Your task to perform on an android device: Open Yahoo.com Image 0: 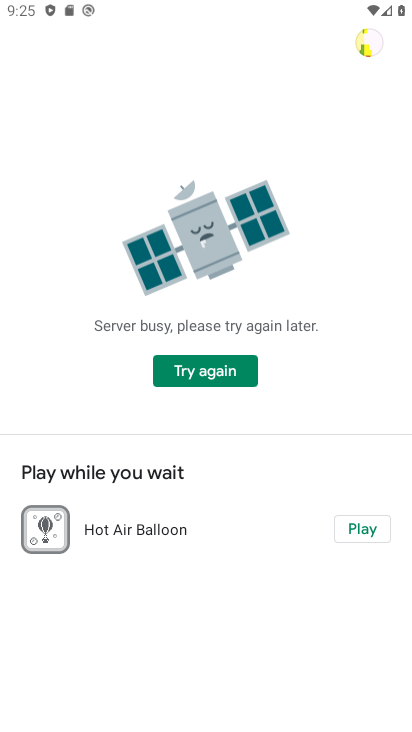
Step 0: press home button
Your task to perform on an android device: Open Yahoo.com Image 1: 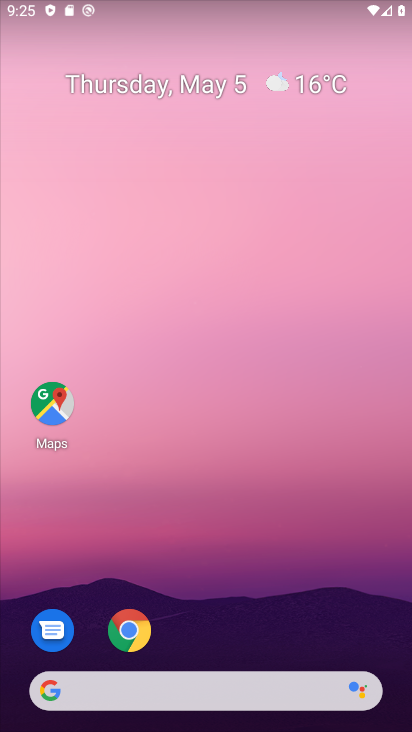
Step 1: click (140, 637)
Your task to perform on an android device: Open Yahoo.com Image 2: 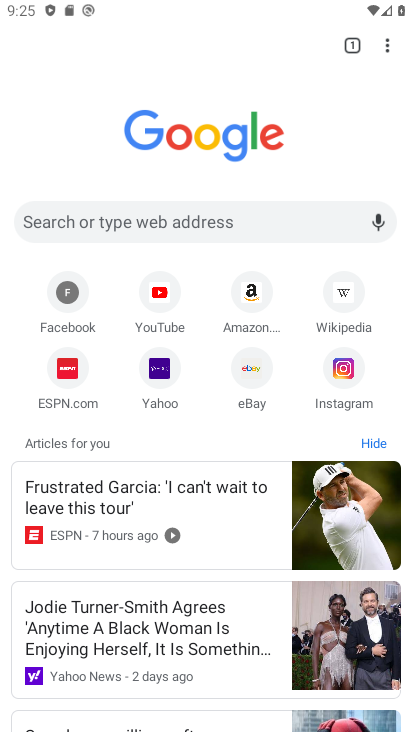
Step 2: click (186, 226)
Your task to perform on an android device: Open Yahoo.com Image 3: 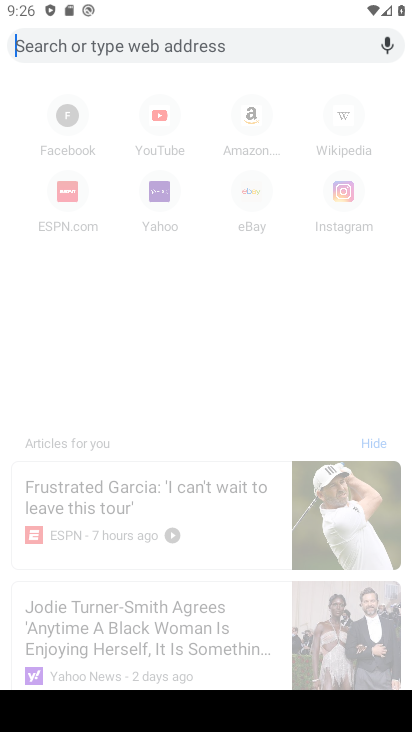
Step 3: type "yahoo.com"
Your task to perform on an android device: Open Yahoo.com Image 4: 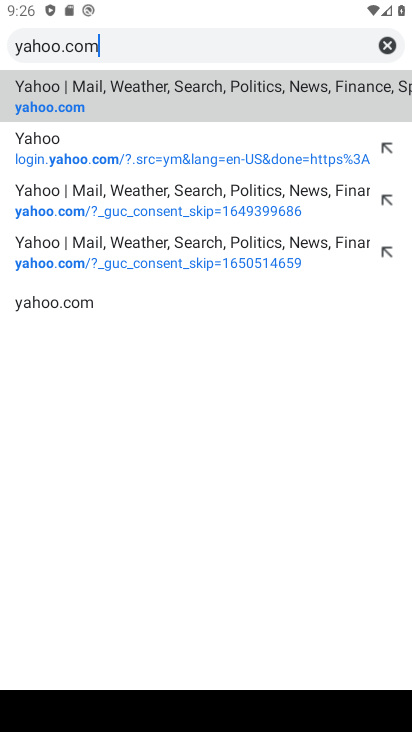
Step 4: click (55, 108)
Your task to perform on an android device: Open Yahoo.com Image 5: 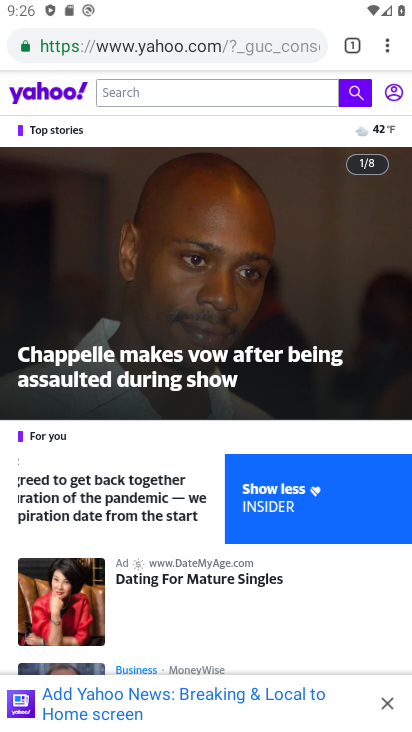
Step 5: task complete